Your task to perform on an android device: Open the calendar app, open the side menu, and click the "Day" option Image 0: 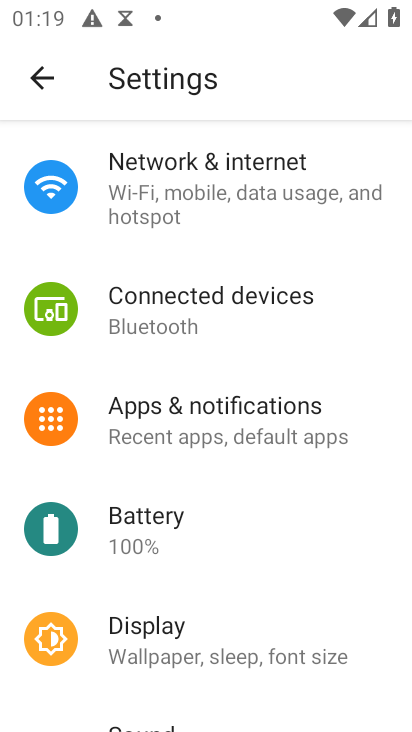
Step 0: press home button
Your task to perform on an android device: Open the calendar app, open the side menu, and click the "Day" option Image 1: 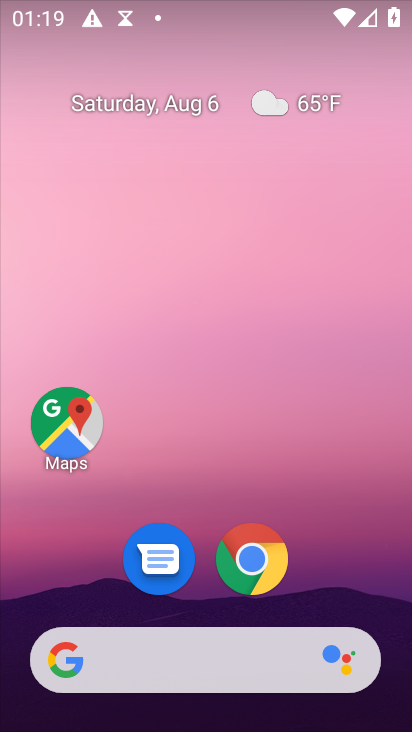
Step 1: drag from (374, 589) to (201, 40)
Your task to perform on an android device: Open the calendar app, open the side menu, and click the "Day" option Image 2: 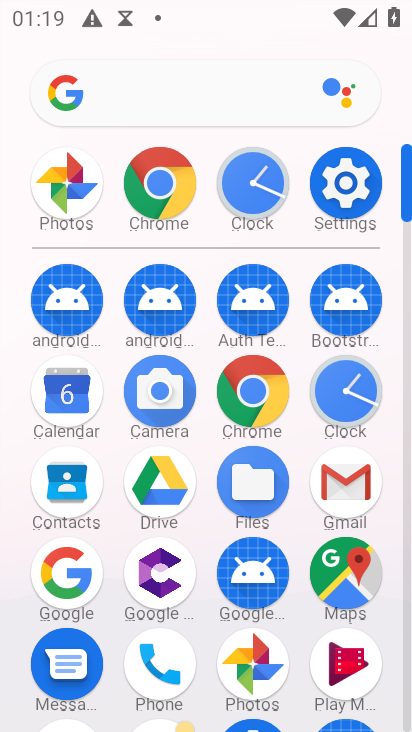
Step 2: click (56, 399)
Your task to perform on an android device: Open the calendar app, open the side menu, and click the "Day" option Image 3: 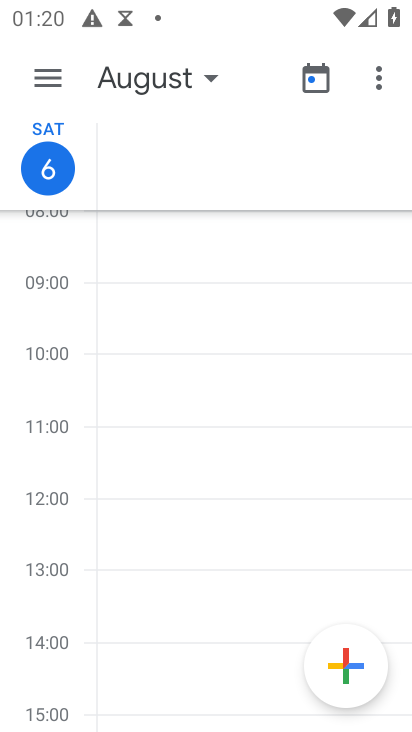
Step 3: click (43, 71)
Your task to perform on an android device: Open the calendar app, open the side menu, and click the "Day" option Image 4: 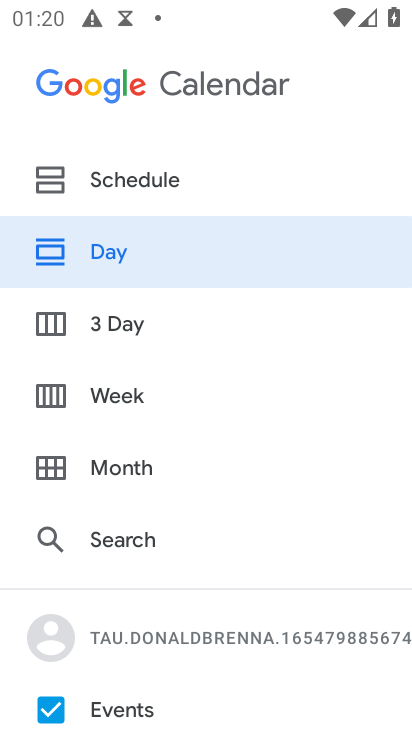
Step 4: click (116, 251)
Your task to perform on an android device: Open the calendar app, open the side menu, and click the "Day" option Image 5: 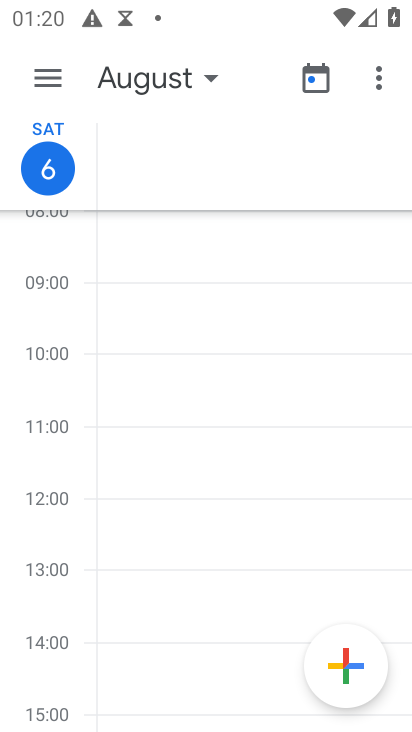
Step 5: task complete